Your task to perform on an android device: Open the calendar and show me this week's events? Image 0: 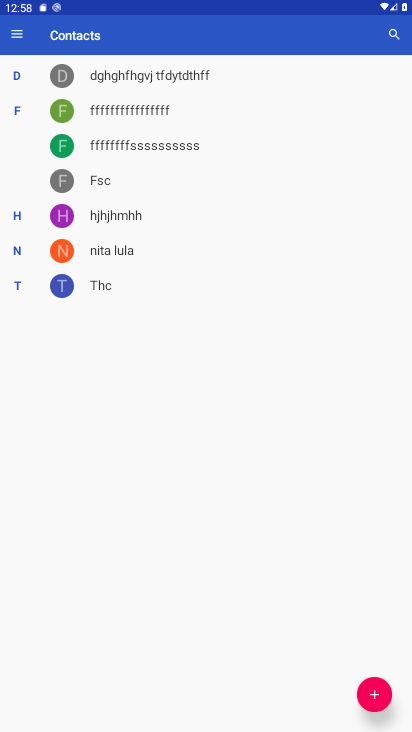
Step 0: click (404, 505)
Your task to perform on an android device: Open the calendar and show me this week's events? Image 1: 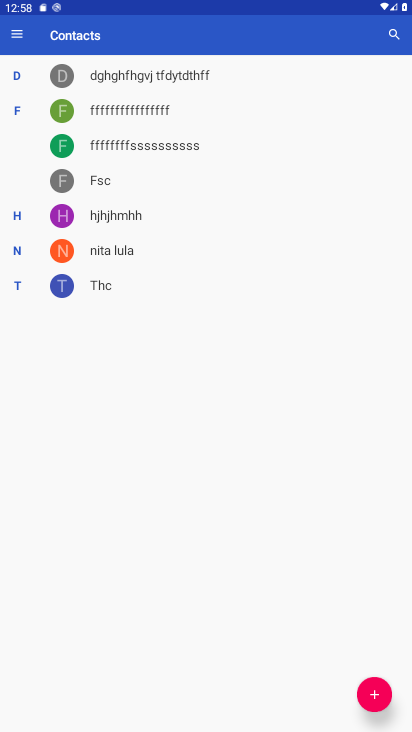
Step 1: press back button
Your task to perform on an android device: Open the calendar and show me this week's events? Image 2: 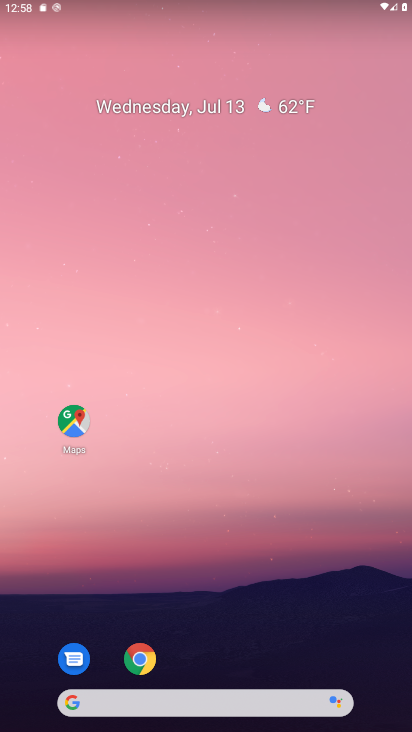
Step 2: drag from (188, 577) to (155, 89)
Your task to perform on an android device: Open the calendar and show me this week's events? Image 3: 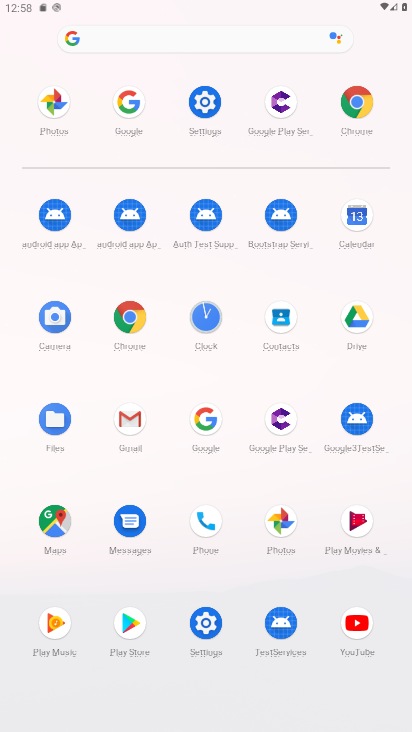
Step 3: click (164, 50)
Your task to perform on an android device: Open the calendar and show me this week's events? Image 4: 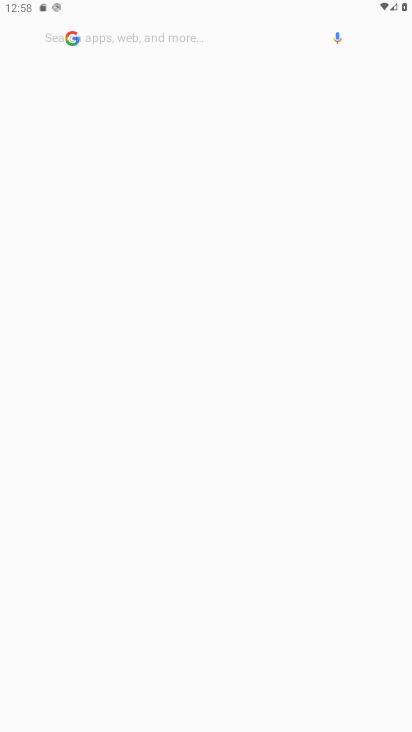
Step 4: drag from (154, 46) to (250, 11)
Your task to perform on an android device: Open the calendar and show me this week's events? Image 5: 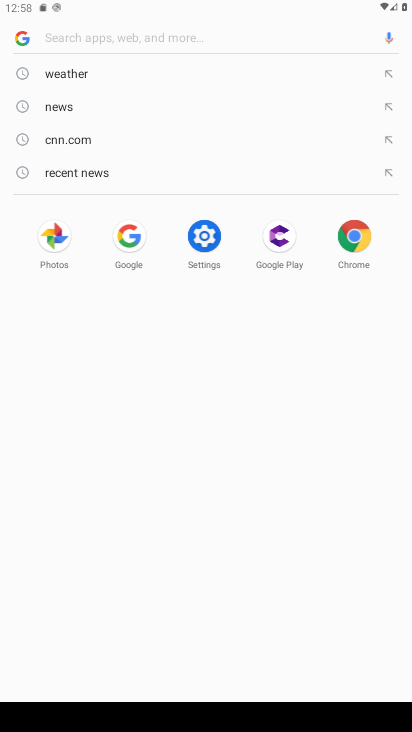
Step 5: press back button
Your task to perform on an android device: Open the calendar and show me this week's events? Image 6: 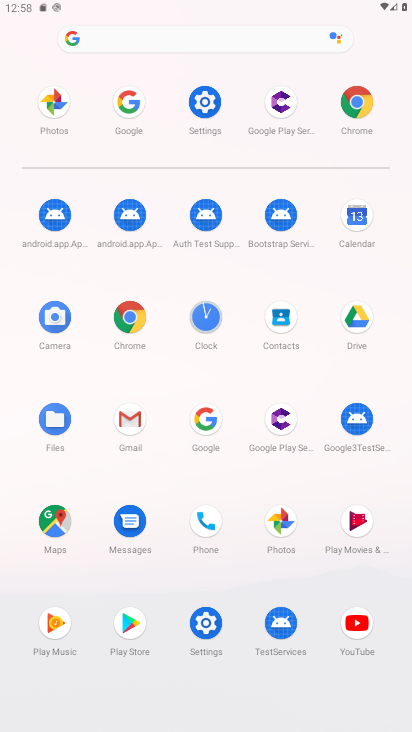
Step 6: click (352, 211)
Your task to perform on an android device: Open the calendar and show me this week's events? Image 7: 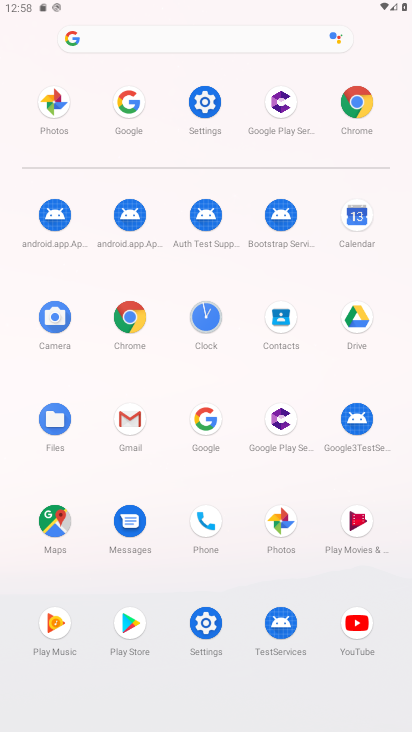
Step 7: click (352, 211)
Your task to perform on an android device: Open the calendar and show me this week's events? Image 8: 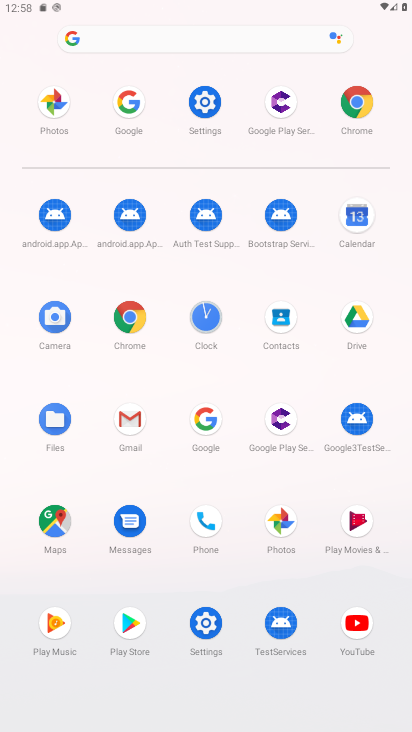
Step 8: click (352, 211)
Your task to perform on an android device: Open the calendar and show me this week's events? Image 9: 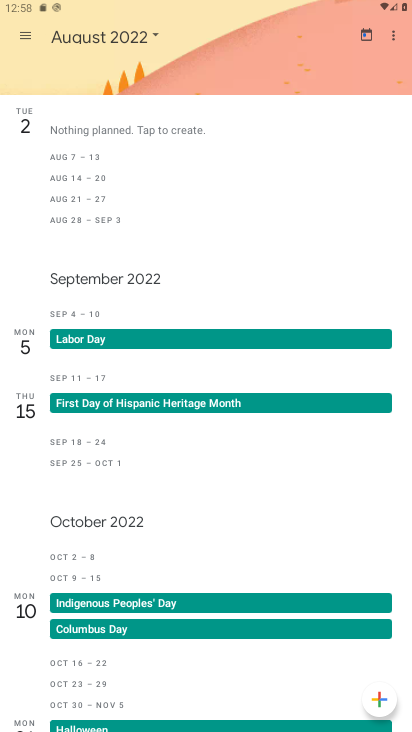
Step 9: click (153, 33)
Your task to perform on an android device: Open the calendar and show me this week's events? Image 10: 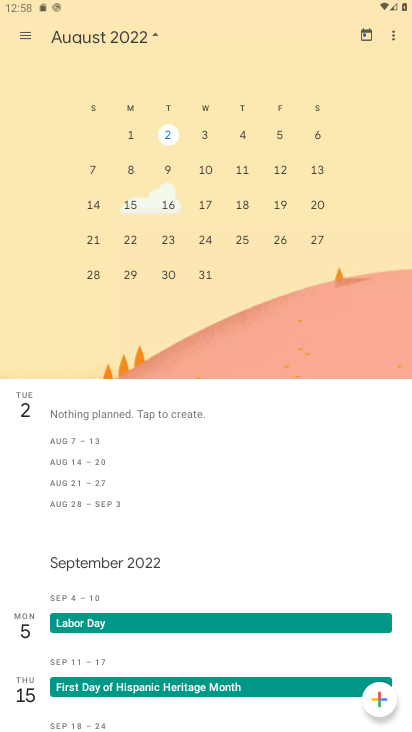
Step 10: drag from (20, 176) to (406, 242)
Your task to perform on an android device: Open the calendar and show me this week's events? Image 11: 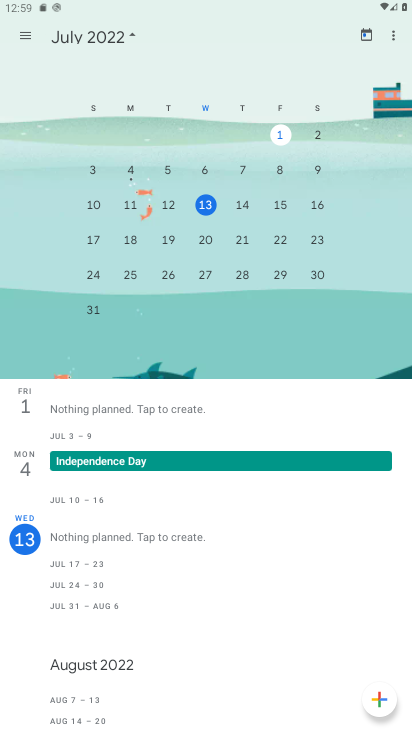
Step 11: click (289, 200)
Your task to perform on an android device: Open the calendar and show me this week's events? Image 12: 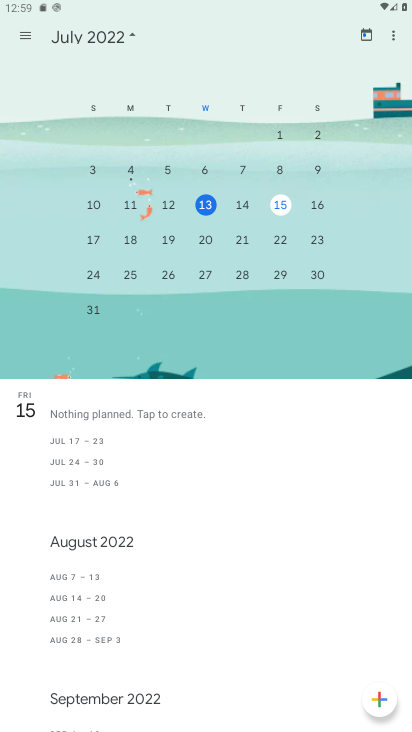
Step 12: click (289, 200)
Your task to perform on an android device: Open the calendar and show me this week's events? Image 13: 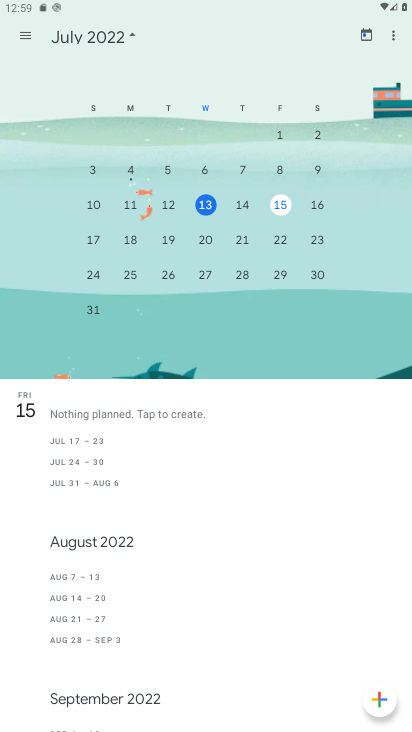
Step 13: click (311, 195)
Your task to perform on an android device: Open the calendar and show me this week's events? Image 14: 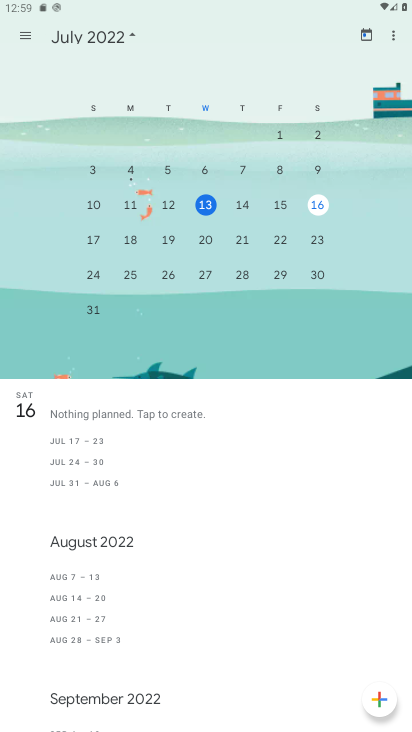
Step 14: click (310, 195)
Your task to perform on an android device: Open the calendar and show me this week's events? Image 15: 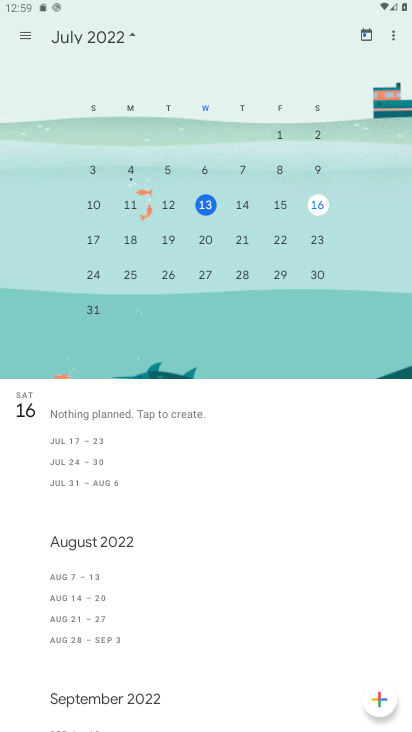
Step 15: click (310, 195)
Your task to perform on an android device: Open the calendar and show me this week's events? Image 16: 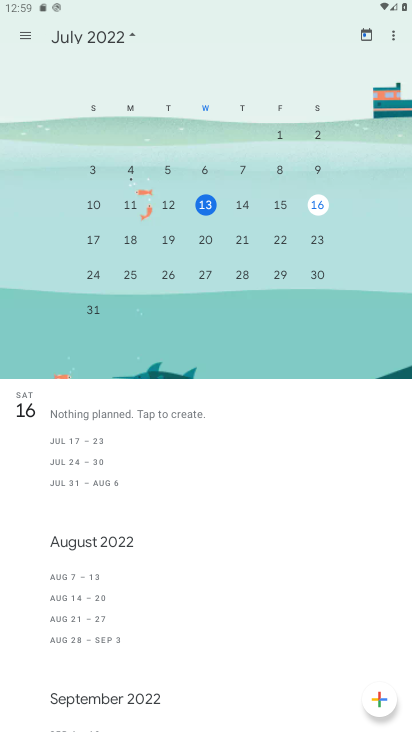
Step 16: task complete